Your task to perform on an android device: open the mobile data screen to see how much data has been used Image 0: 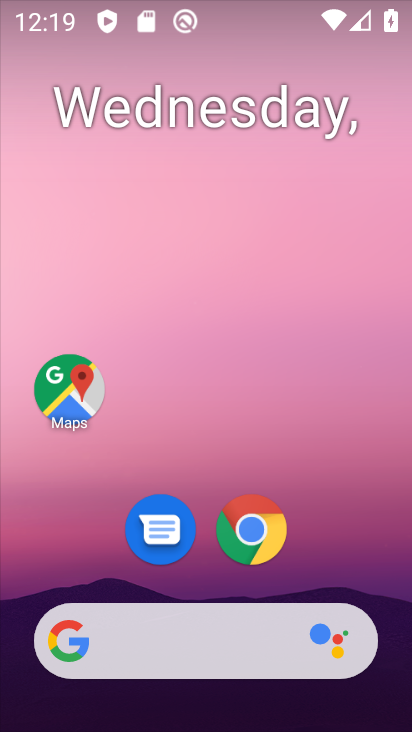
Step 0: drag from (398, 648) to (344, 113)
Your task to perform on an android device: open the mobile data screen to see how much data has been used Image 1: 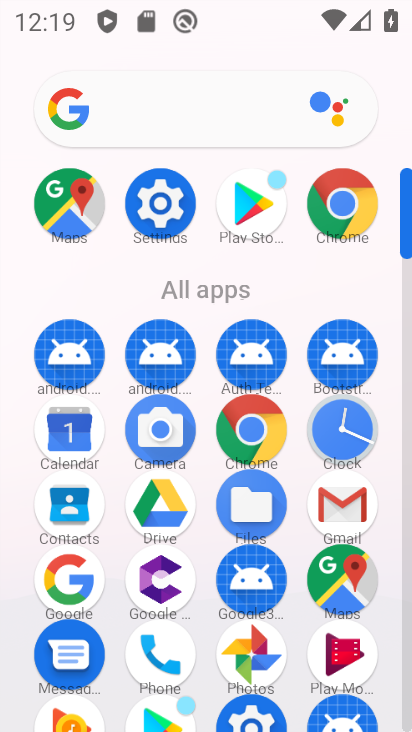
Step 1: click (406, 664)
Your task to perform on an android device: open the mobile data screen to see how much data has been used Image 2: 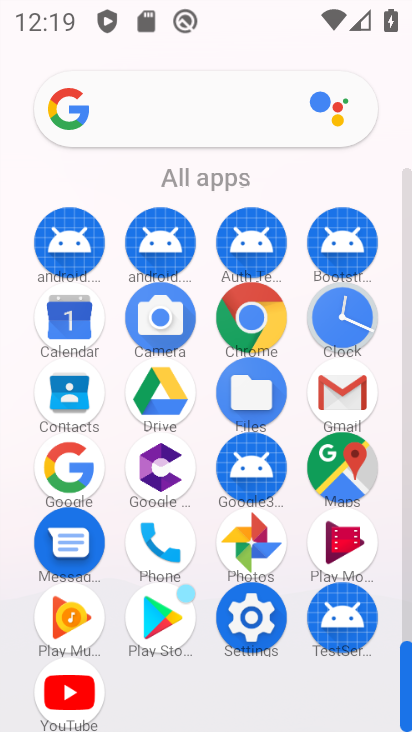
Step 2: click (252, 618)
Your task to perform on an android device: open the mobile data screen to see how much data has been used Image 3: 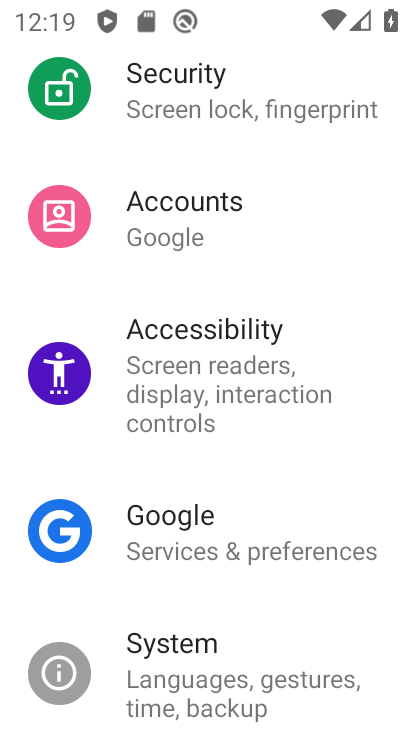
Step 3: drag from (347, 188) to (340, 540)
Your task to perform on an android device: open the mobile data screen to see how much data has been used Image 4: 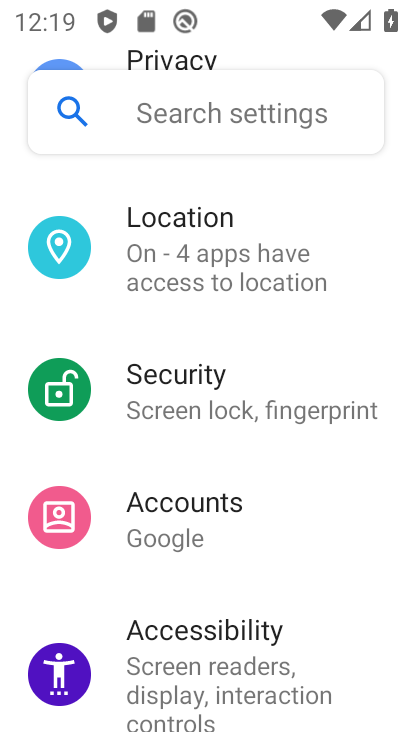
Step 4: drag from (332, 238) to (336, 601)
Your task to perform on an android device: open the mobile data screen to see how much data has been used Image 5: 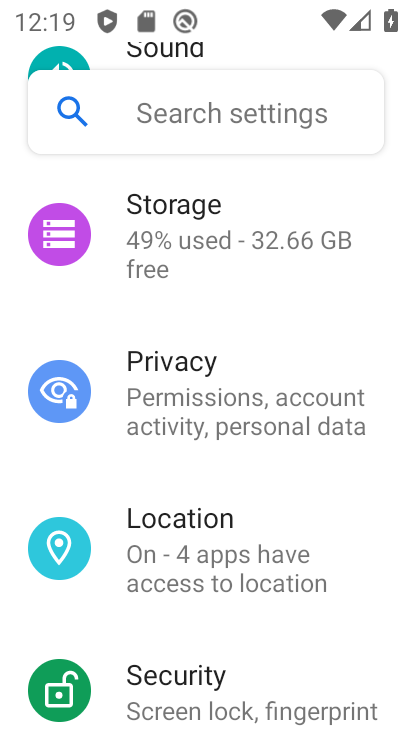
Step 5: drag from (334, 305) to (331, 668)
Your task to perform on an android device: open the mobile data screen to see how much data has been used Image 6: 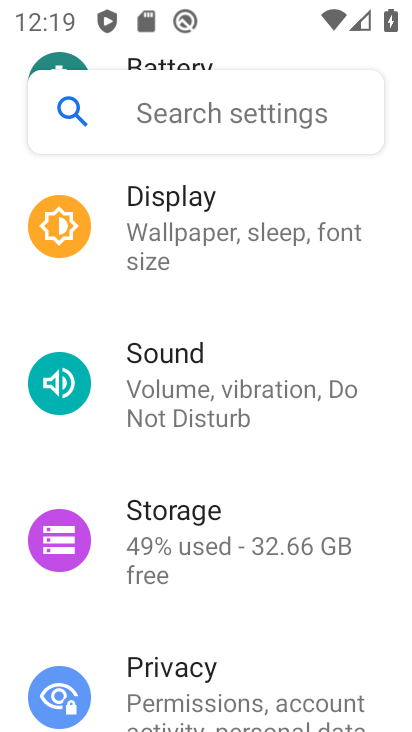
Step 6: drag from (333, 272) to (353, 660)
Your task to perform on an android device: open the mobile data screen to see how much data has been used Image 7: 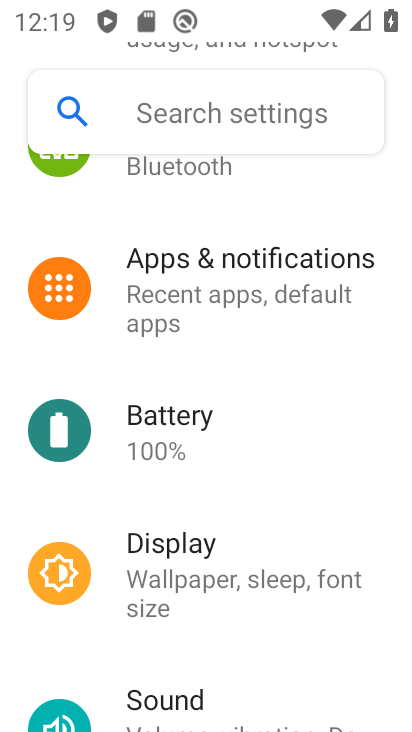
Step 7: drag from (339, 232) to (350, 668)
Your task to perform on an android device: open the mobile data screen to see how much data has been used Image 8: 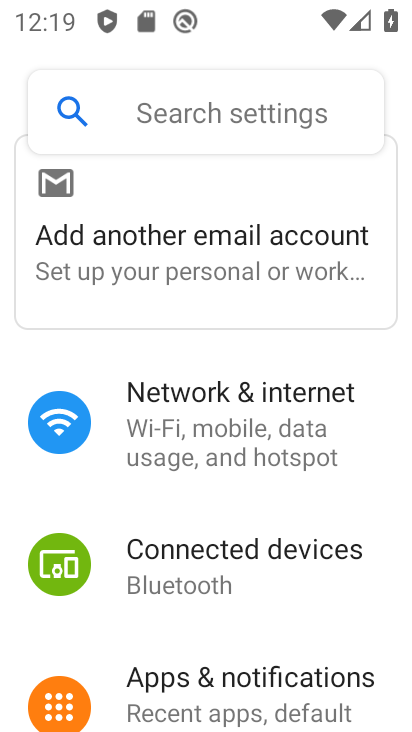
Step 8: click (201, 406)
Your task to perform on an android device: open the mobile data screen to see how much data has been used Image 9: 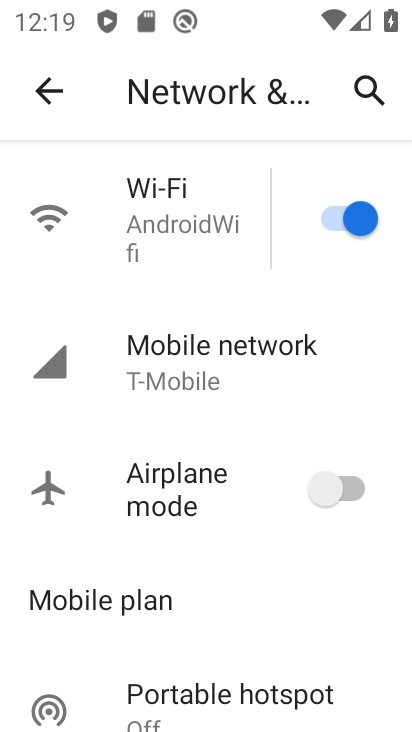
Step 9: click (224, 351)
Your task to perform on an android device: open the mobile data screen to see how much data has been used Image 10: 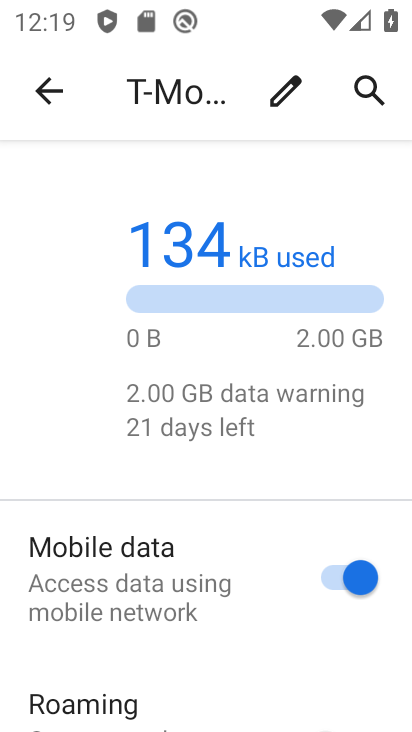
Step 10: task complete